Your task to perform on an android device: Set an alarm for 3pm Image 0: 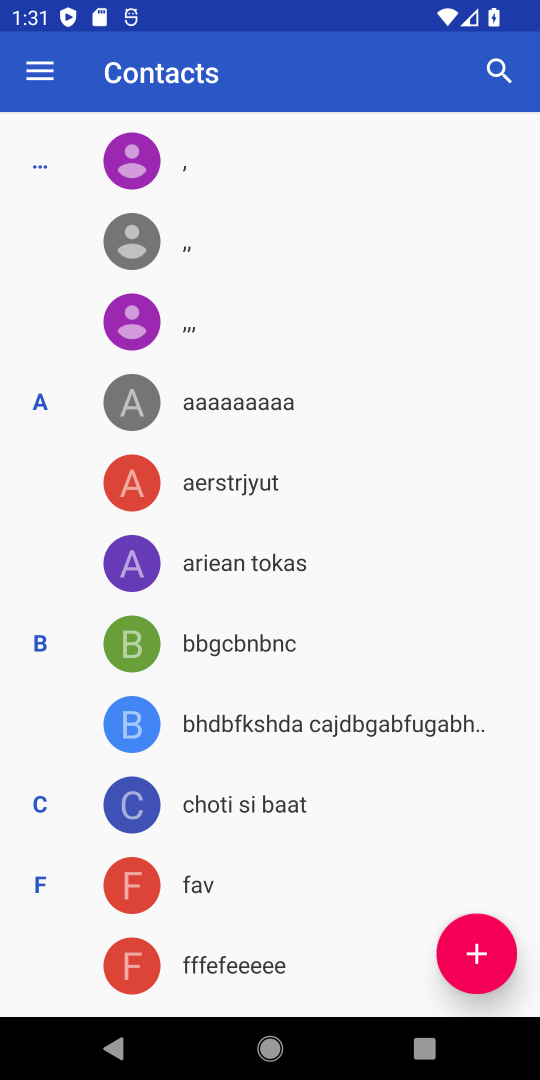
Step 0: press home button
Your task to perform on an android device: Set an alarm for 3pm Image 1: 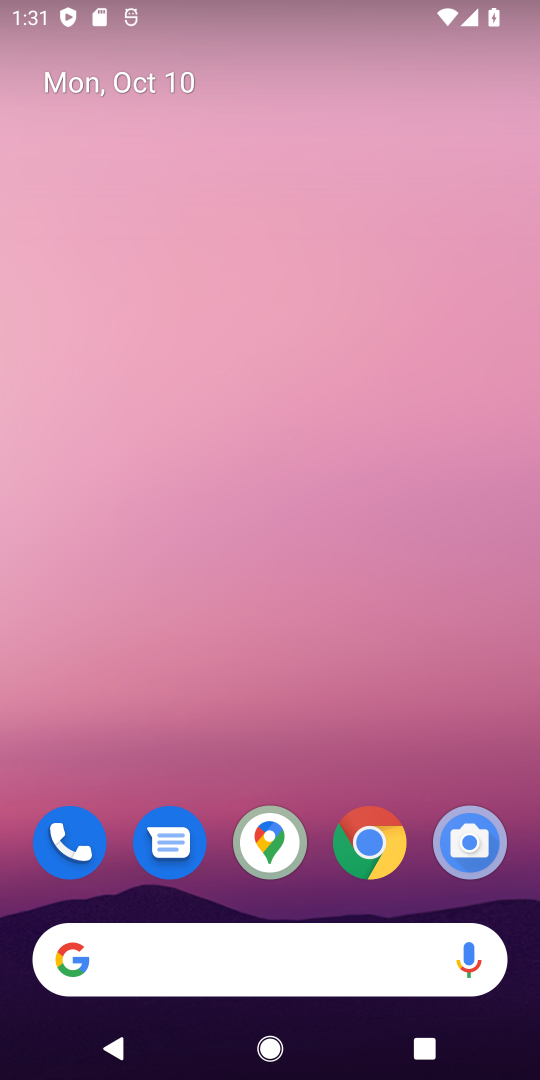
Step 1: drag from (310, 870) to (237, 110)
Your task to perform on an android device: Set an alarm for 3pm Image 2: 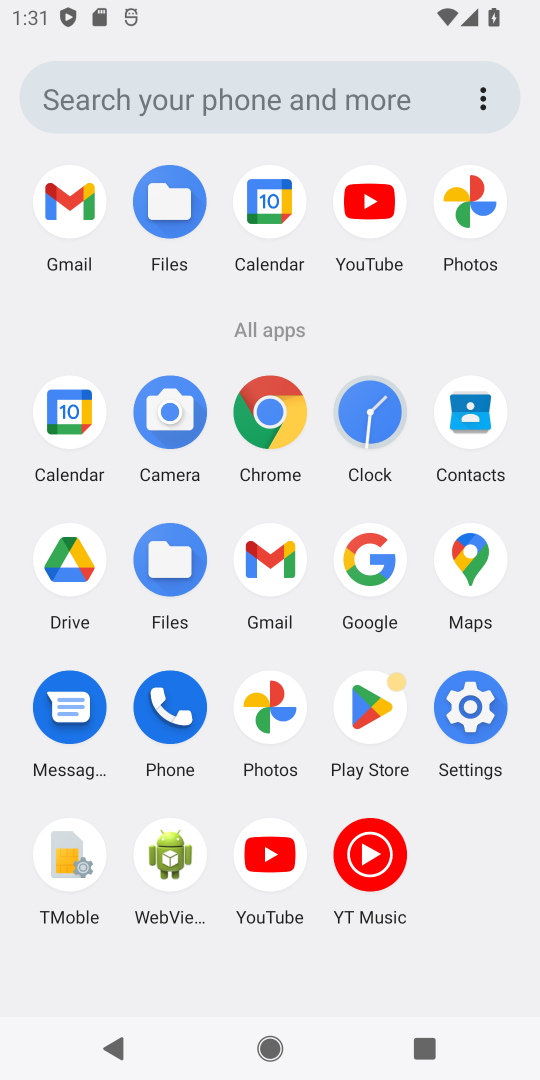
Step 2: click (364, 429)
Your task to perform on an android device: Set an alarm for 3pm Image 3: 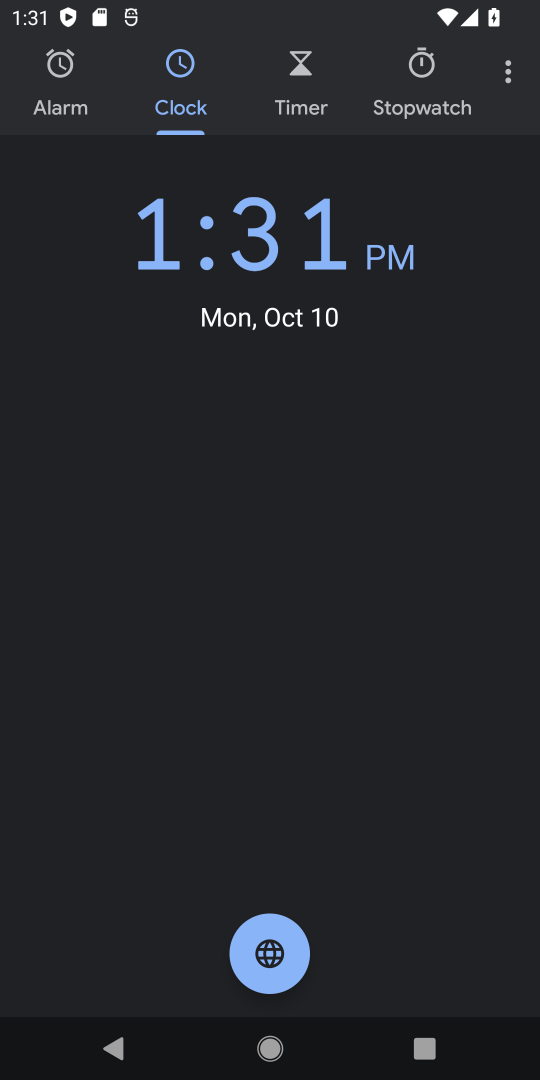
Step 3: click (71, 109)
Your task to perform on an android device: Set an alarm for 3pm Image 4: 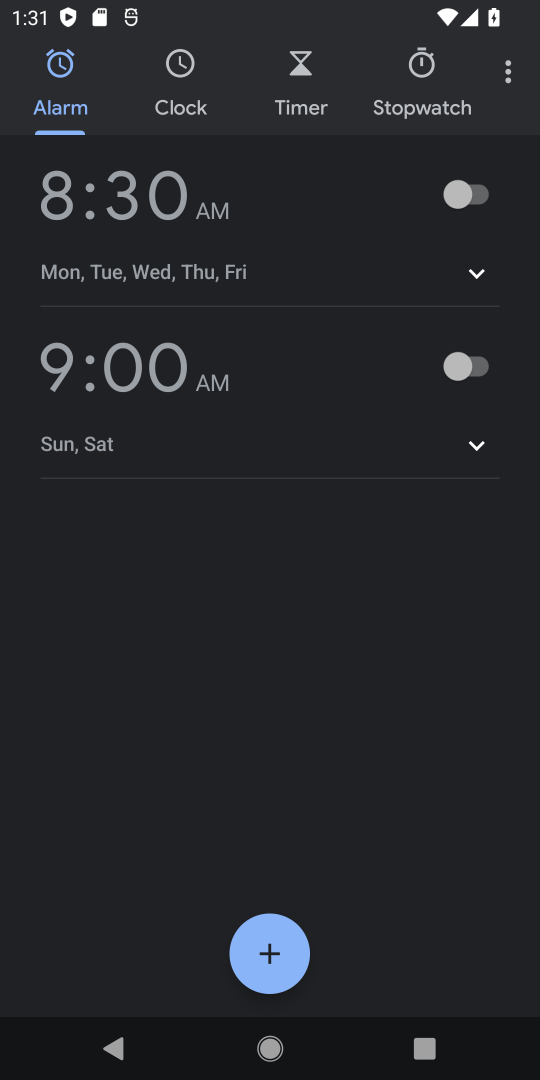
Step 4: click (287, 961)
Your task to perform on an android device: Set an alarm for 3pm Image 5: 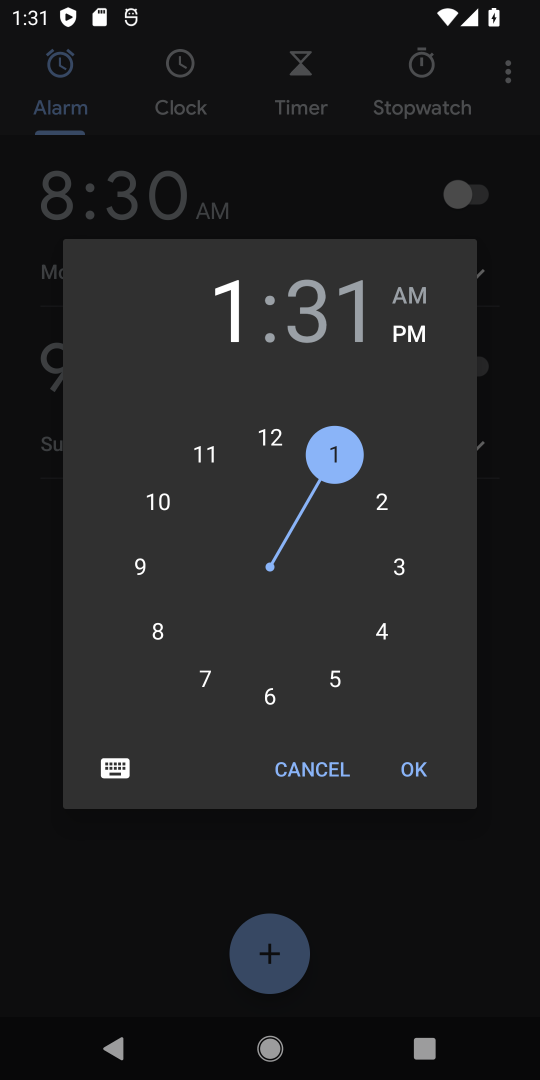
Step 5: click (403, 568)
Your task to perform on an android device: Set an alarm for 3pm Image 6: 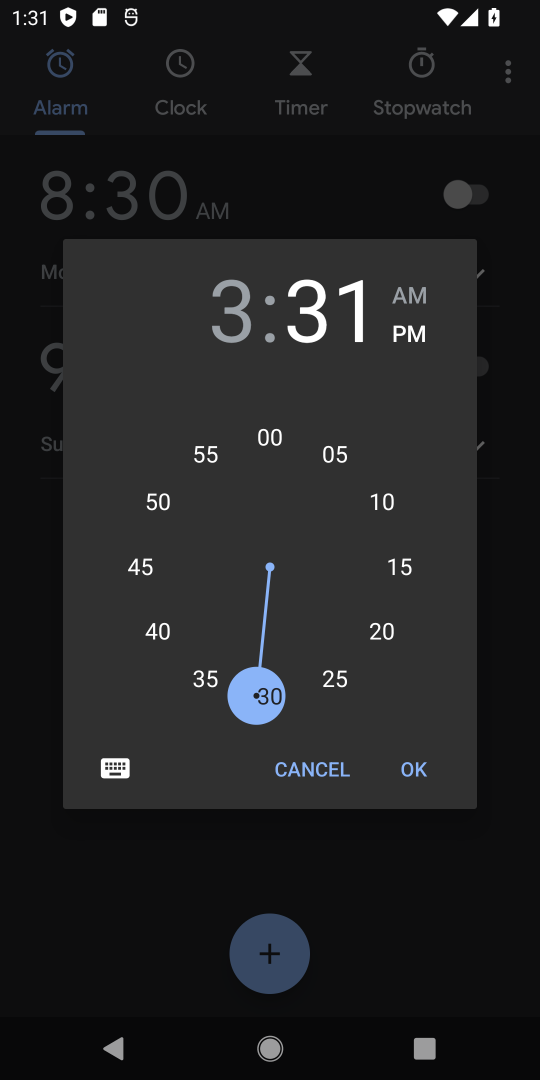
Step 6: click (268, 442)
Your task to perform on an android device: Set an alarm for 3pm Image 7: 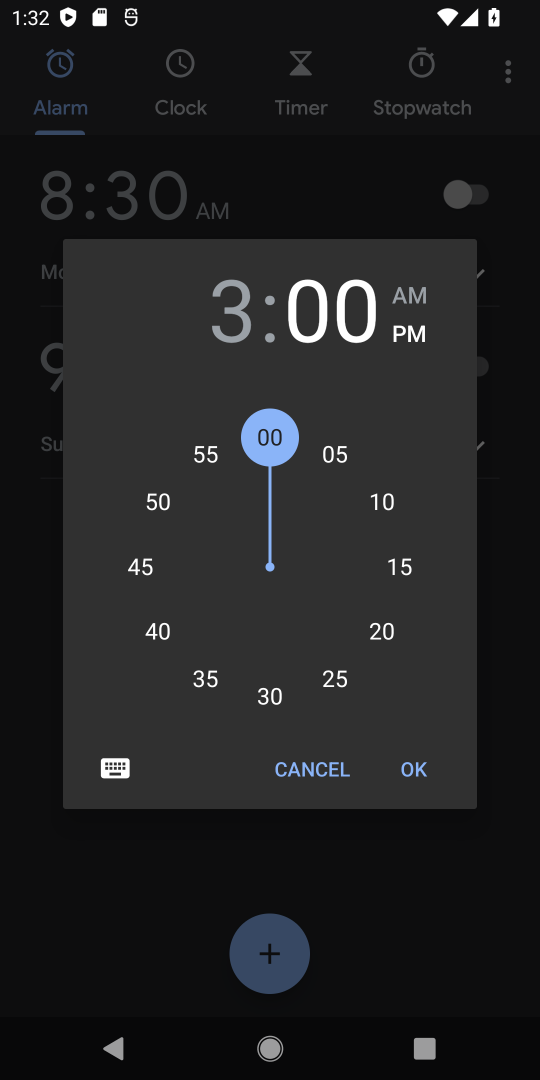
Step 7: click (410, 338)
Your task to perform on an android device: Set an alarm for 3pm Image 8: 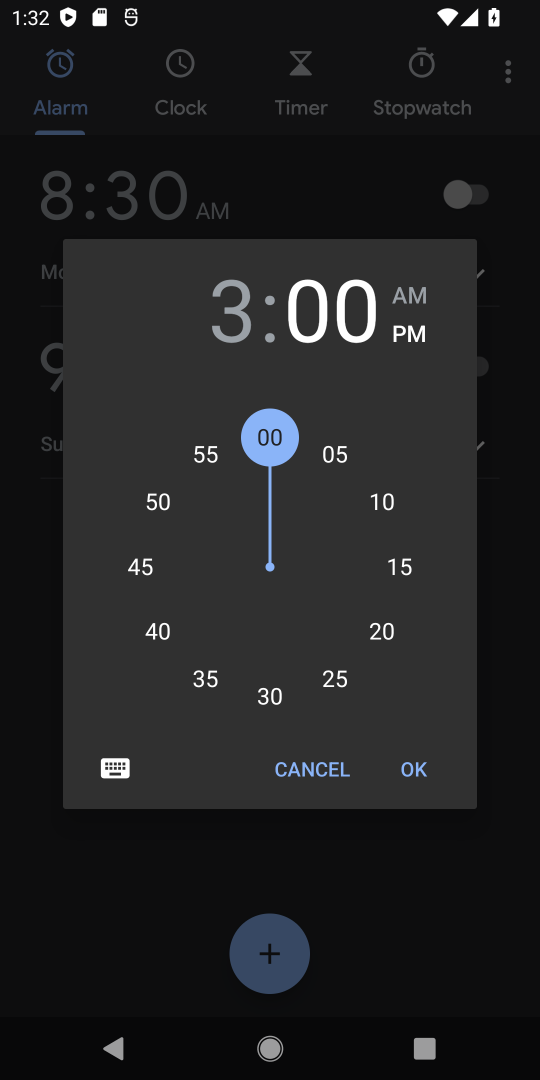
Step 8: click (404, 621)
Your task to perform on an android device: Set an alarm for 3pm Image 9: 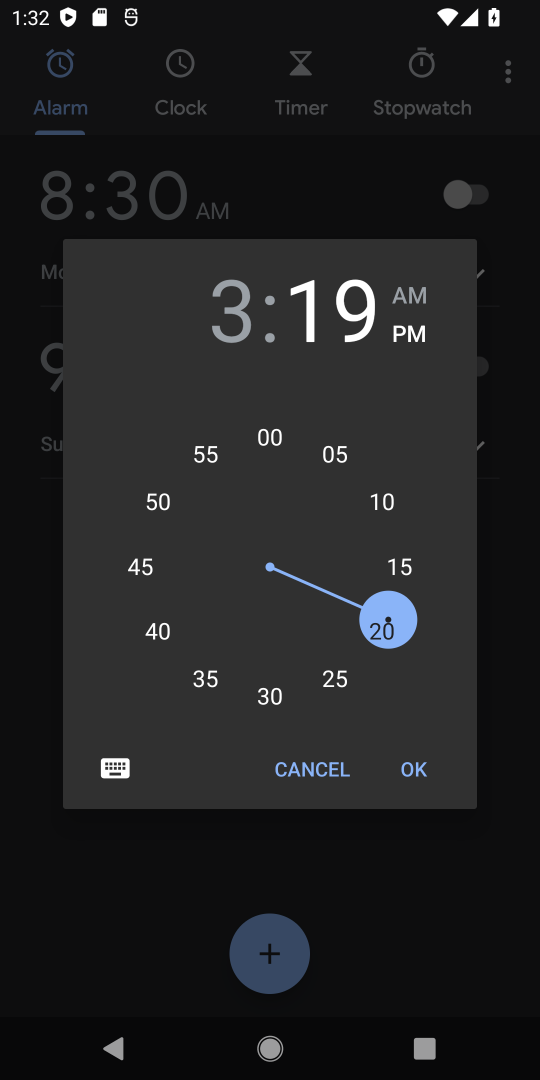
Step 9: click (305, 681)
Your task to perform on an android device: Set an alarm for 3pm Image 10: 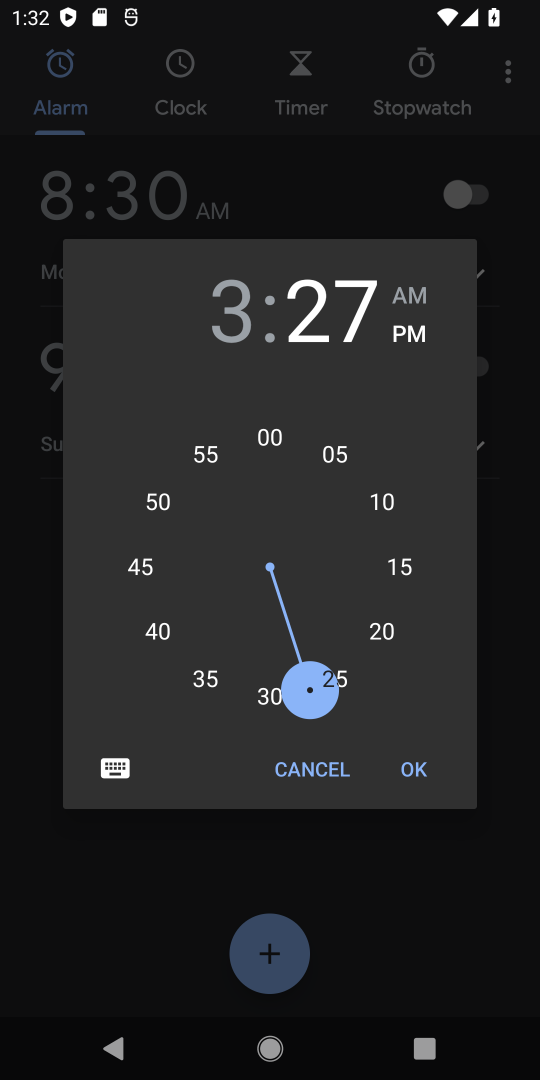
Step 10: click (341, 464)
Your task to perform on an android device: Set an alarm for 3pm Image 11: 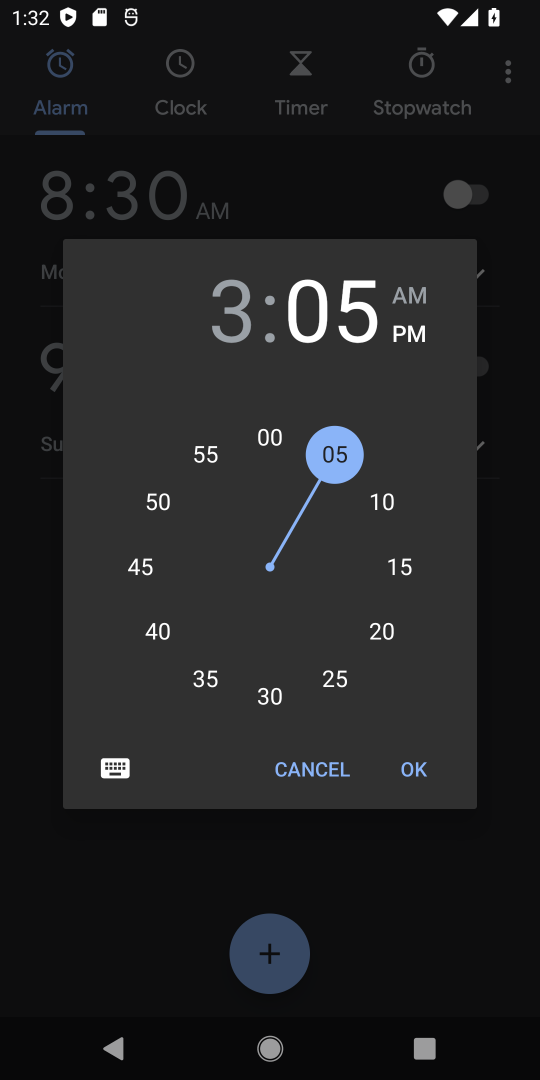
Step 11: click (388, 505)
Your task to perform on an android device: Set an alarm for 3pm Image 12: 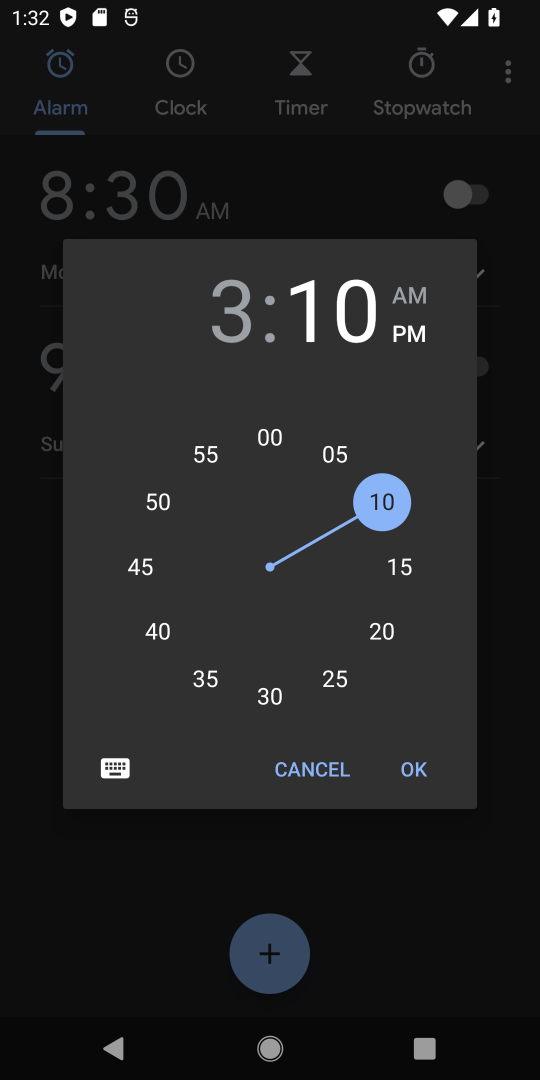
Step 12: click (397, 574)
Your task to perform on an android device: Set an alarm for 3pm Image 13: 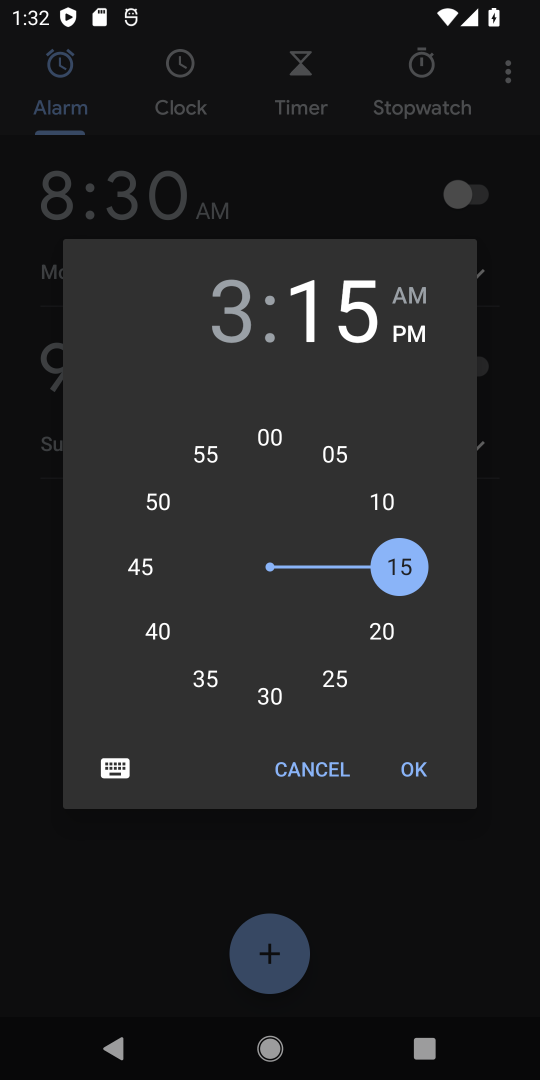
Step 13: click (395, 619)
Your task to perform on an android device: Set an alarm for 3pm Image 14: 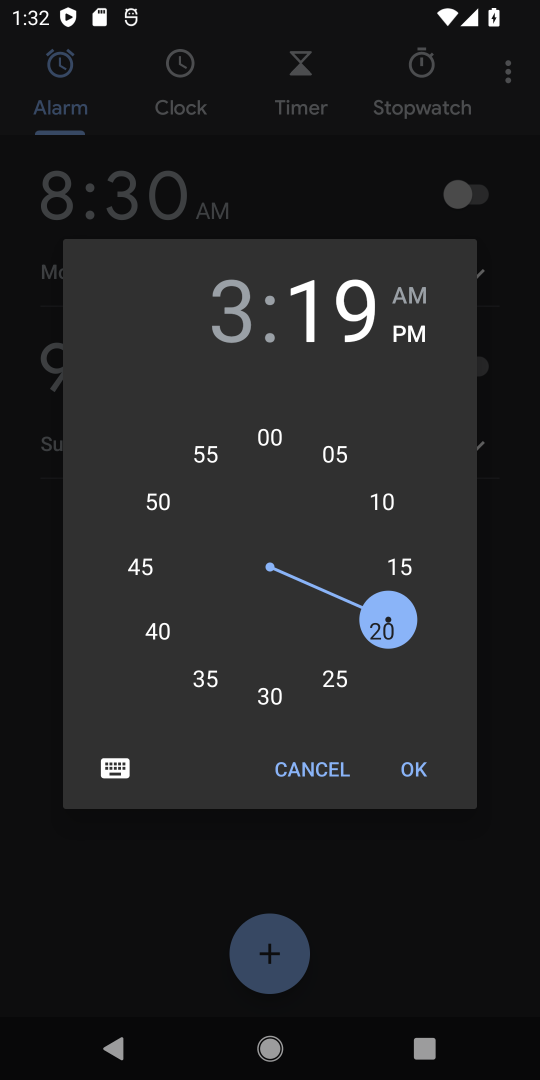
Step 14: click (329, 671)
Your task to perform on an android device: Set an alarm for 3pm Image 15: 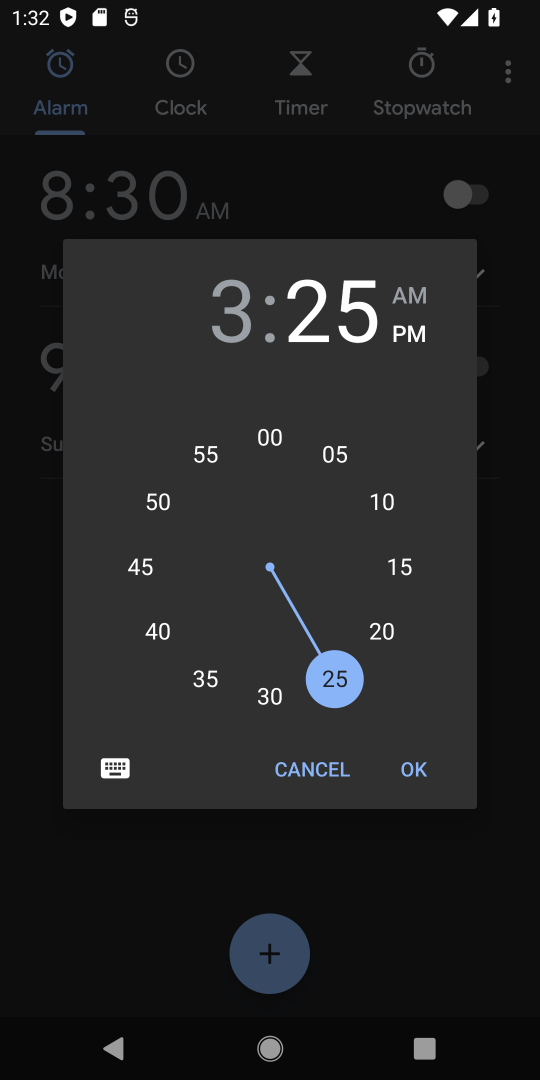
Step 15: click (287, 712)
Your task to perform on an android device: Set an alarm for 3pm Image 16: 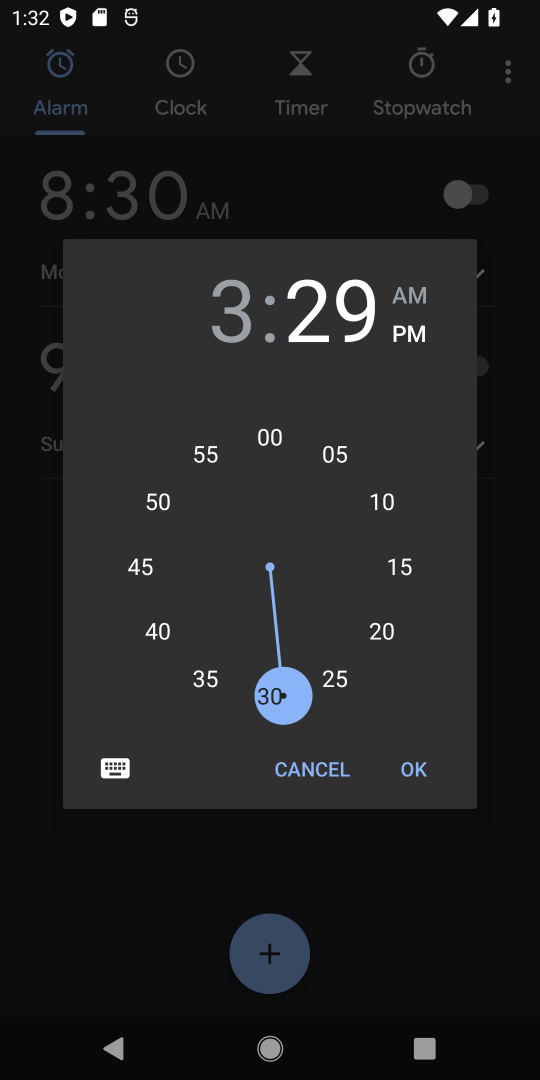
Step 16: click (210, 689)
Your task to perform on an android device: Set an alarm for 3pm Image 17: 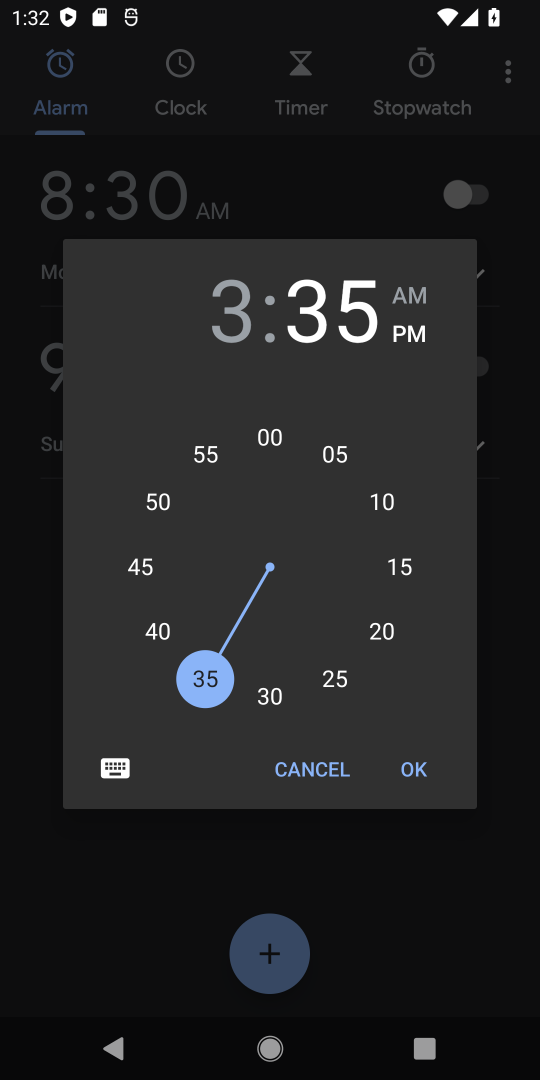
Step 17: click (156, 636)
Your task to perform on an android device: Set an alarm for 3pm Image 18: 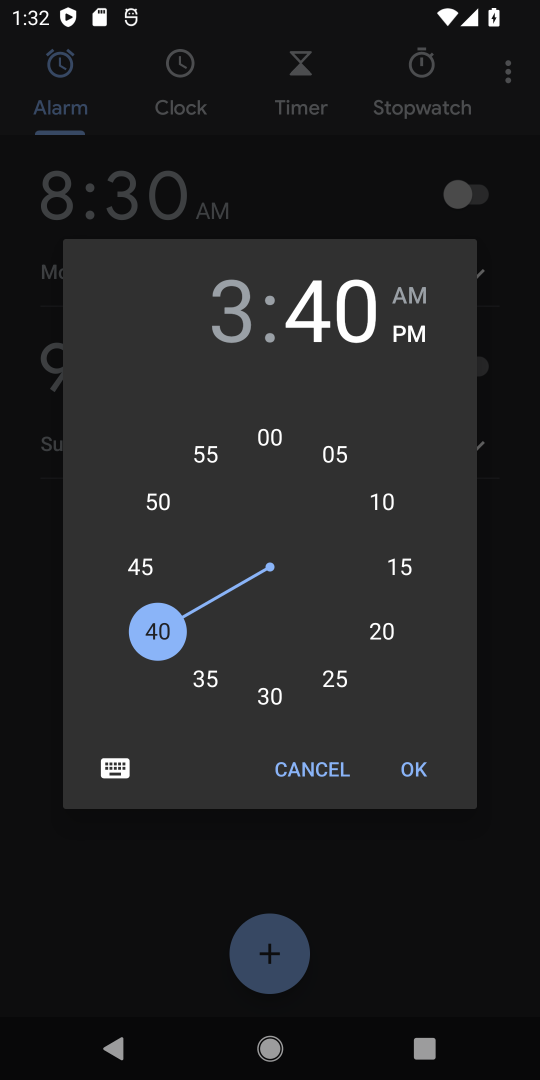
Step 18: click (141, 565)
Your task to perform on an android device: Set an alarm for 3pm Image 19: 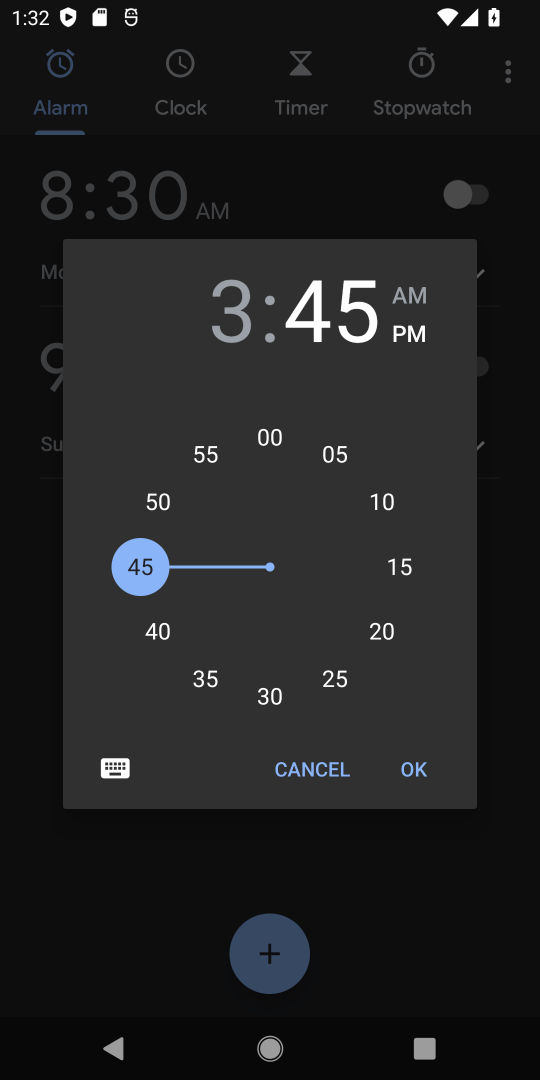
Step 19: click (154, 490)
Your task to perform on an android device: Set an alarm for 3pm Image 20: 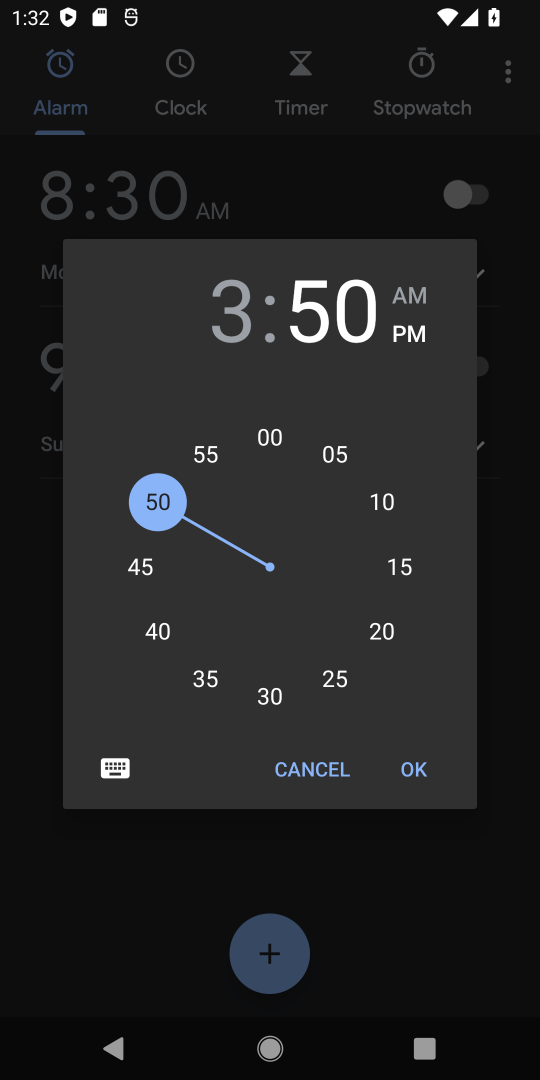
Step 20: click (204, 444)
Your task to perform on an android device: Set an alarm for 3pm Image 21: 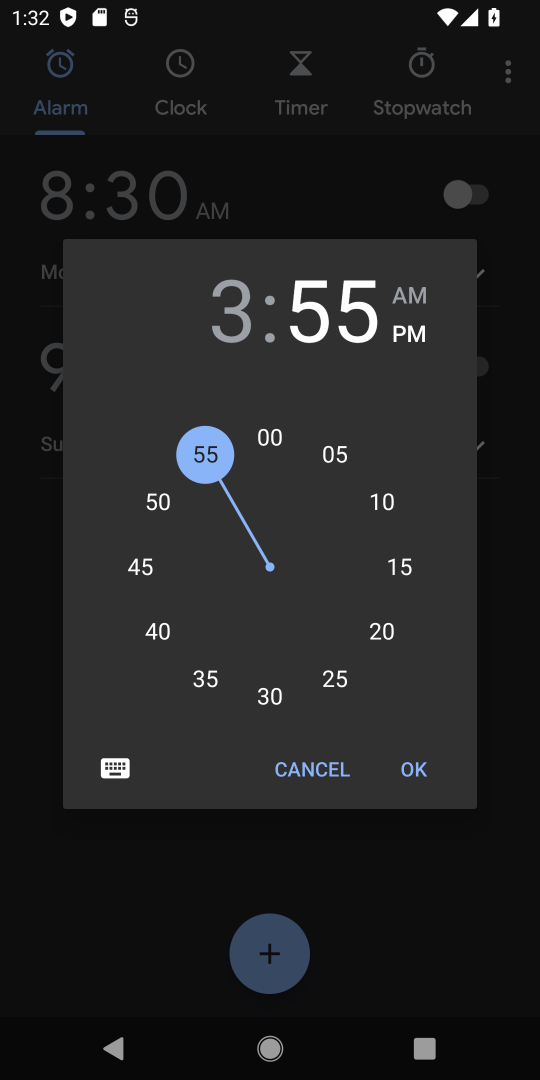
Step 21: click (274, 434)
Your task to perform on an android device: Set an alarm for 3pm Image 22: 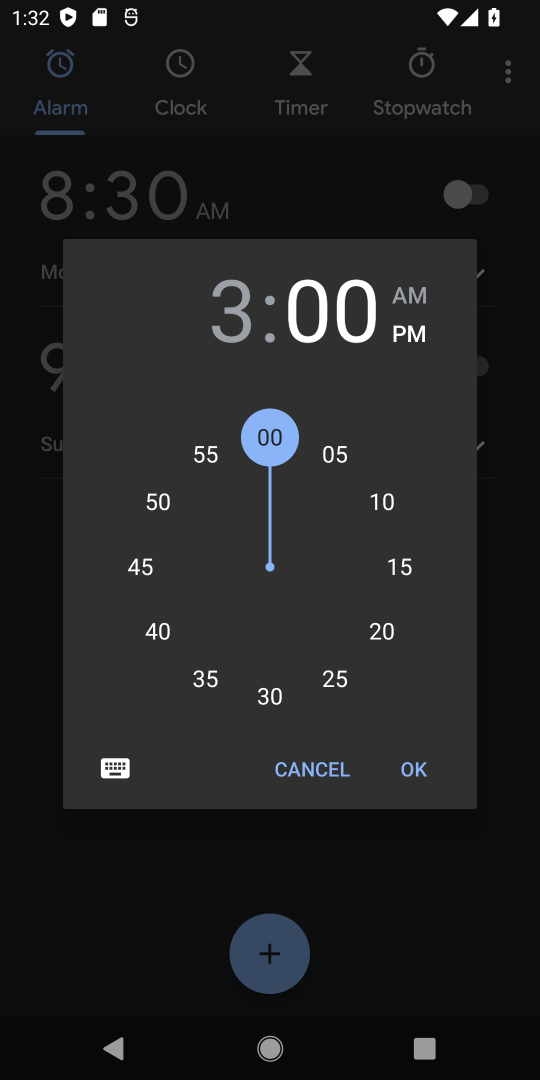
Step 22: click (411, 778)
Your task to perform on an android device: Set an alarm for 3pm Image 23: 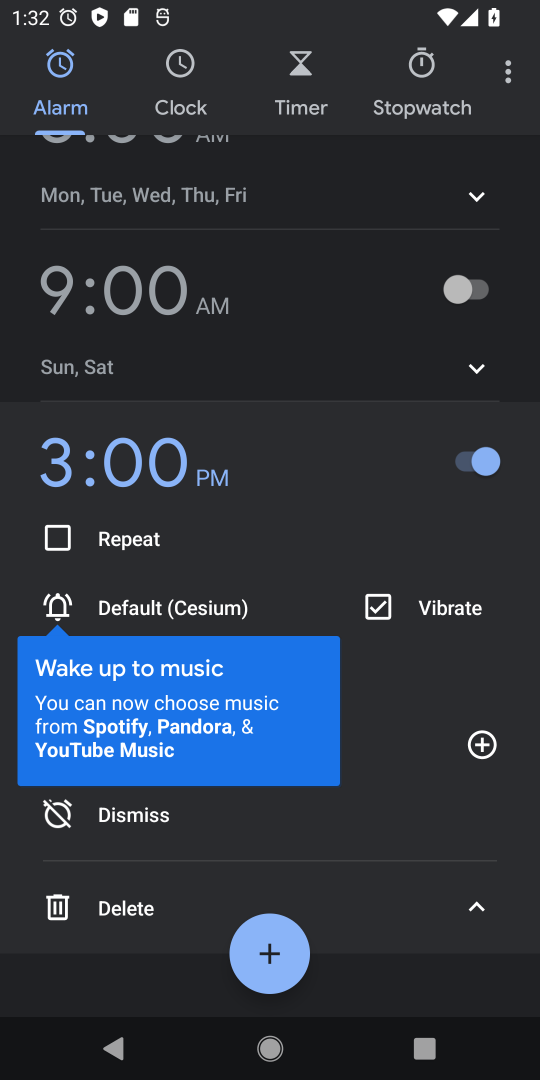
Step 23: click (483, 909)
Your task to perform on an android device: Set an alarm for 3pm Image 24: 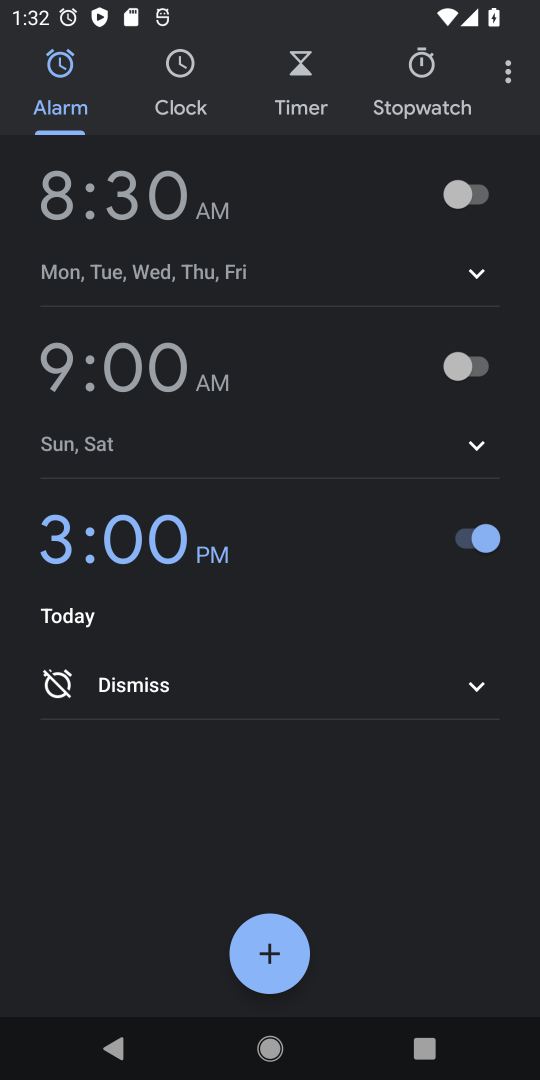
Step 24: click (414, 838)
Your task to perform on an android device: Set an alarm for 3pm Image 25: 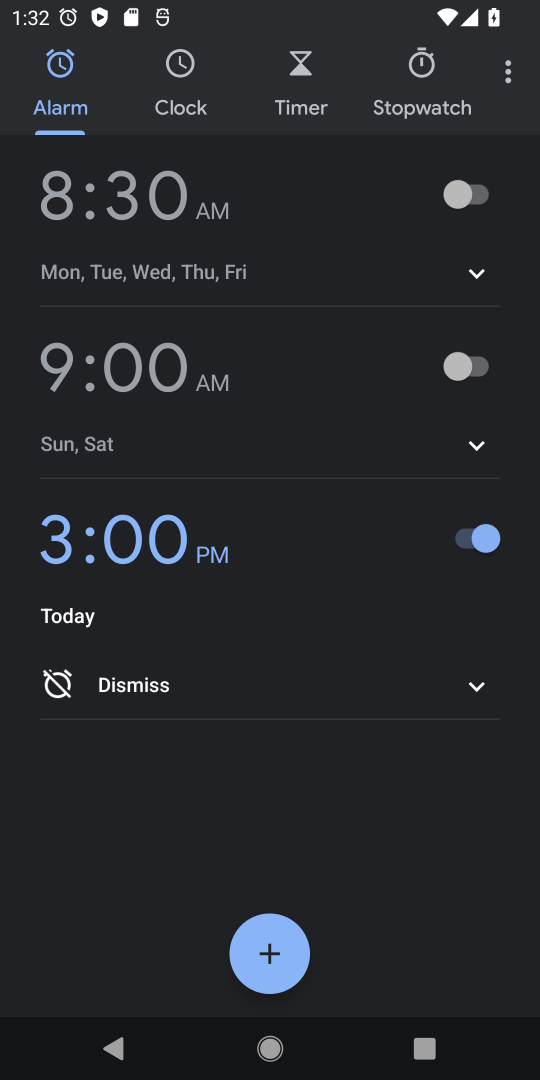
Step 25: task complete